Your task to perform on an android device: Open ESPN.com Image 0: 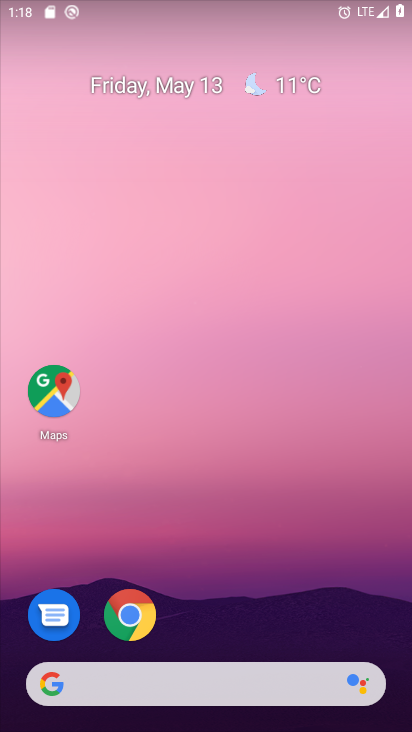
Step 0: click (292, 694)
Your task to perform on an android device: Open ESPN.com Image 1: 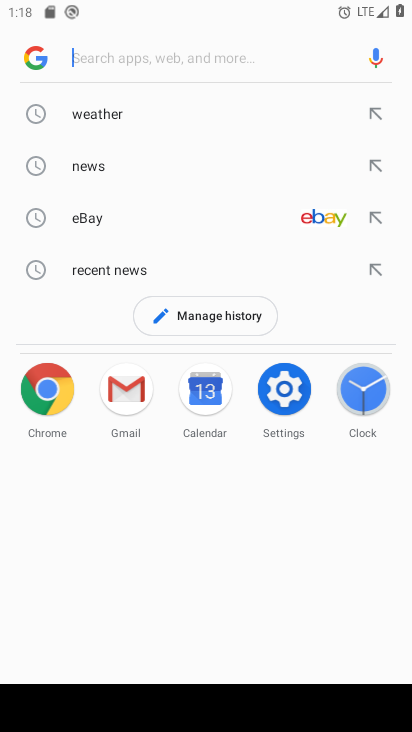
Step 1: type "espn.com"
Your task to perform on an android device: Open ESPN.com Image 2: 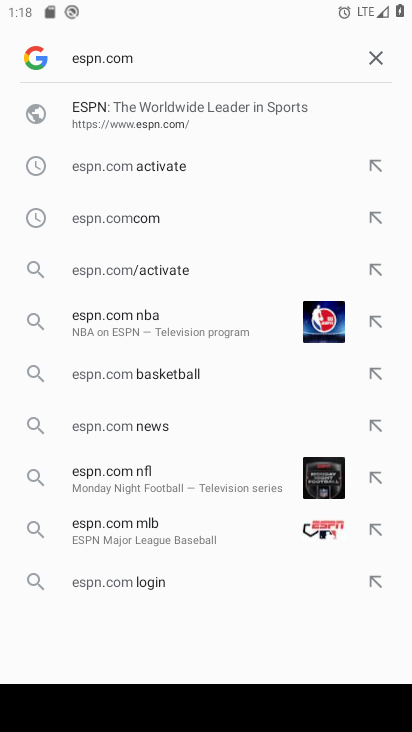
Step 2: click (95, 113)
Your task to perform on an android device: Open ESPN.com Image 3: 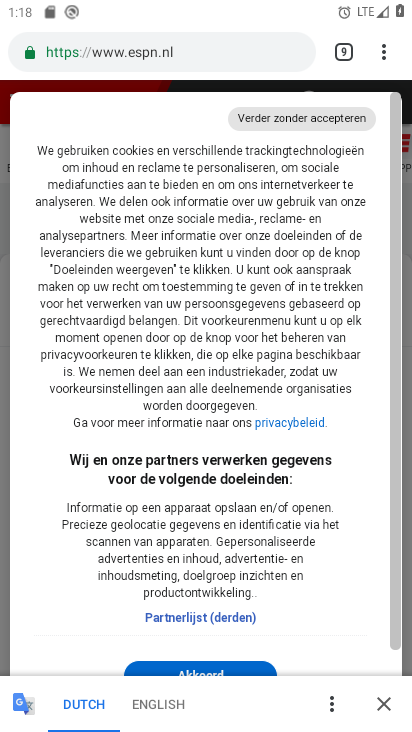
Step 3: task complete